Your task to perform on an android device: Open Chrome and go to the settings page Image 0: 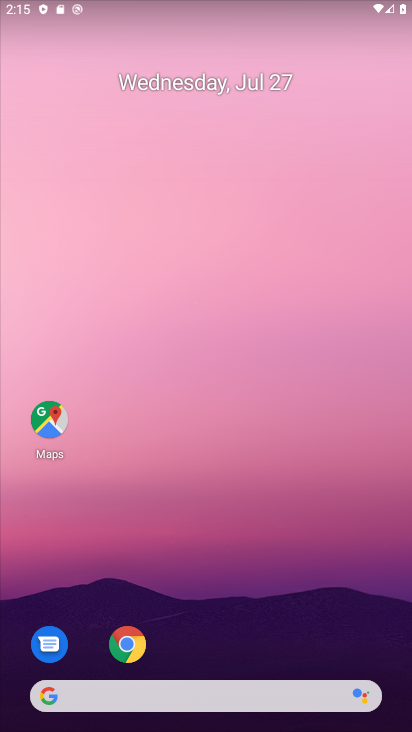
Step 0: click (124, 648)
Your task to perform on an android device: Open Chrome and go to the settings page Image 1: 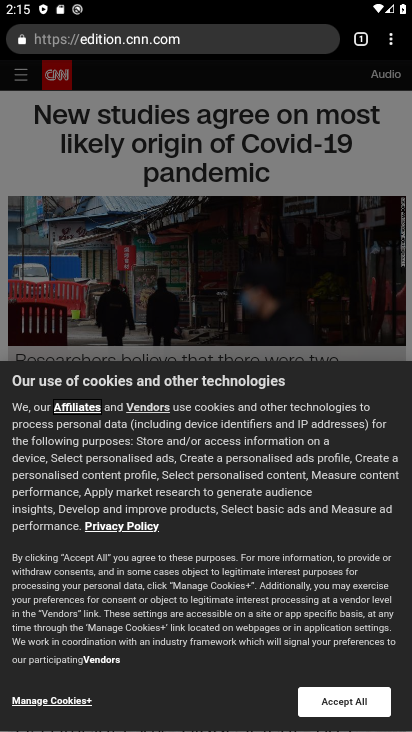
Step 1: click (393, 42)
Your task to perform on an android device: Open Chrome and go to the settings page Image 2: 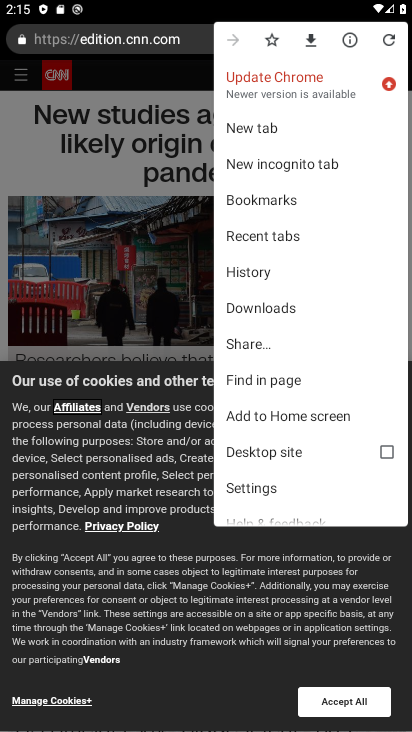
Step 2: click (269, 485)
Your task to perform on an android device: Open Chrome and go to the settings page Image 3: 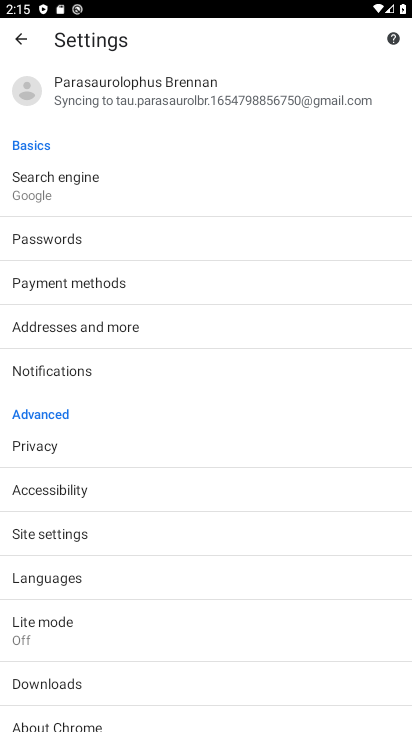
Step 3: task complete